Your task to perform on an android device: turn on sleep mode Image 0: 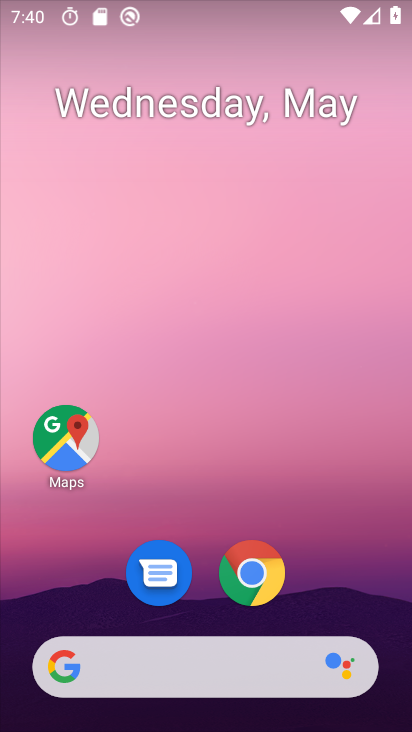
Step 0: drag from (324, 606) to (321, 10)
Your task to perform on an android device: turn on sleep mode Image 1: 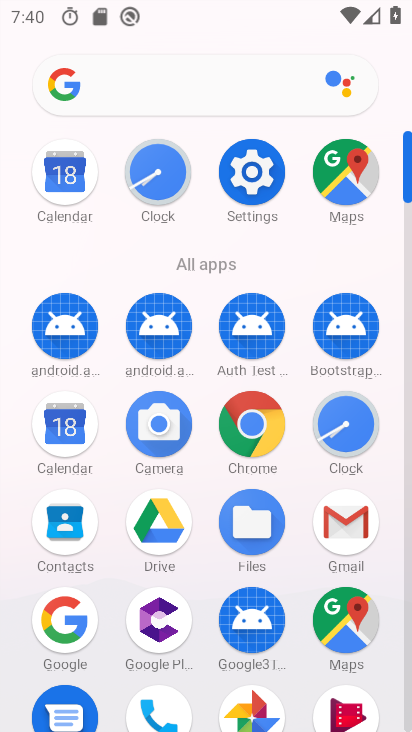
Step 1: click (239, 149)
Your task to perform on an android device: turn on sleep mode Image 2: 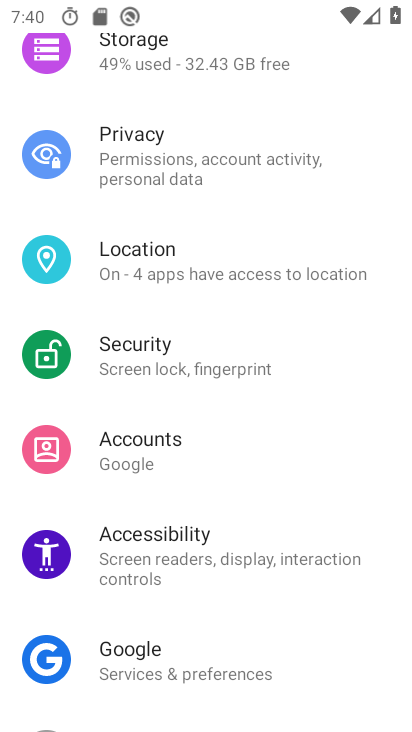
Step 2: drag from (327, 477) to (360, 176)
Your task to perform on an android device: turn on sleep mode Image 3: 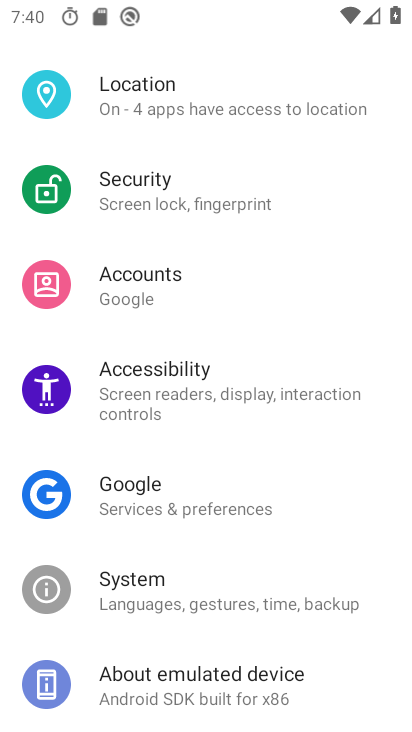
Step 3: drag from (364, 183) to (366, 351)
Your task to perform on an android device: turn on sleep mode Image 4: 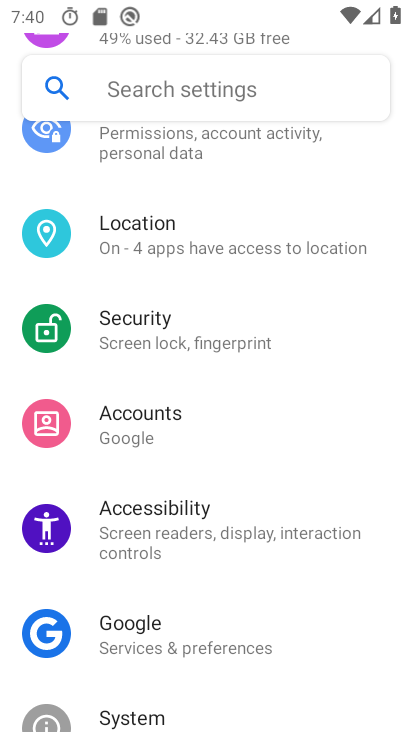
Step 4: drag from (362, 292) to (361, 420)
Your task to perform on an android device: turn on sleep mode Image 5: 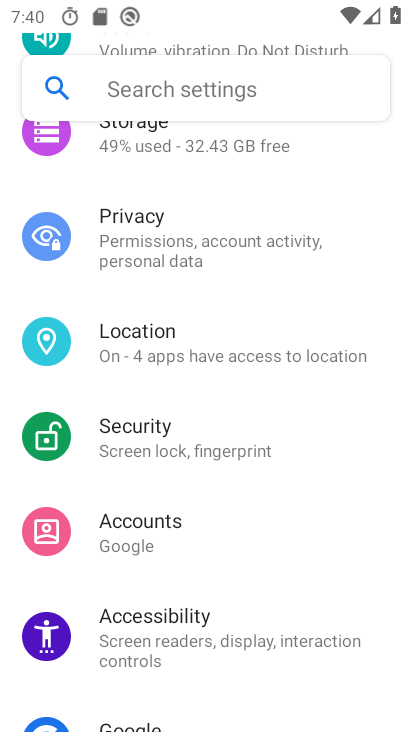
Step 5: drag from (336, 317) to (376, 434)
Your task to perform on an android device: turn on sleep mode Image 6: 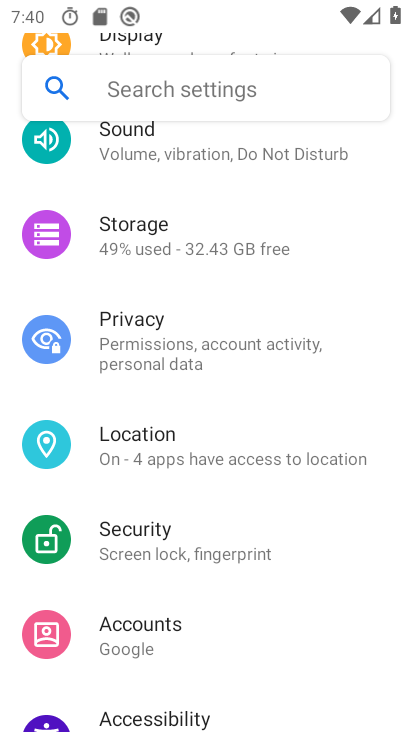
Step 6: drag from (335, 253) to (335, 491)
Your task to perform on an android device: turn on sleep mode Image 7: 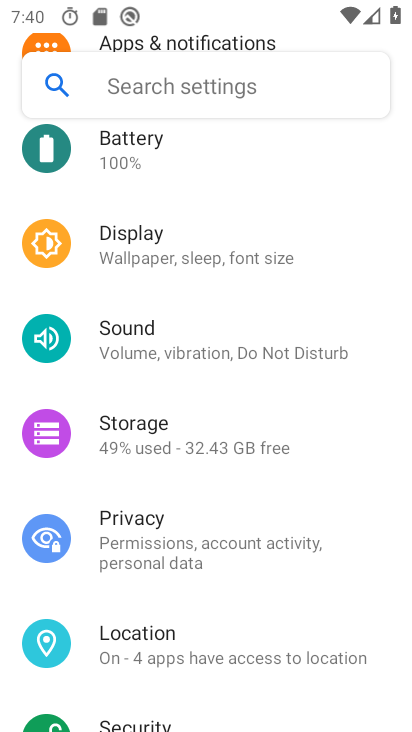
Step 7: drag from (275, 314) to (320, 471)
Your task to perform on an android device: turn on sleep mode Image 8: 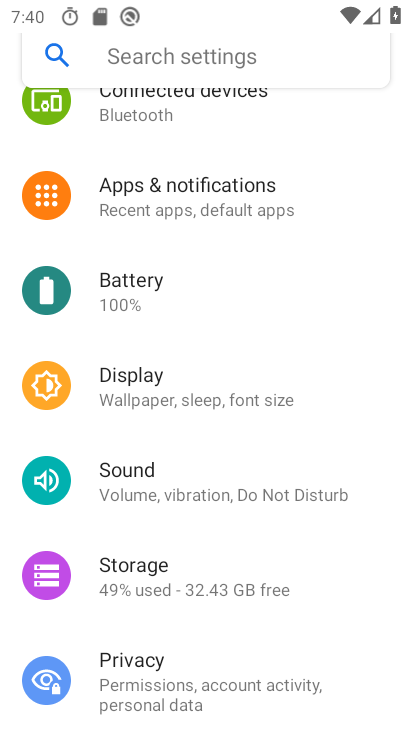
Step 8: drag from (286, 314) to (355, 661)
Your task to perform on an android device: turn on sleep mode Image 9: 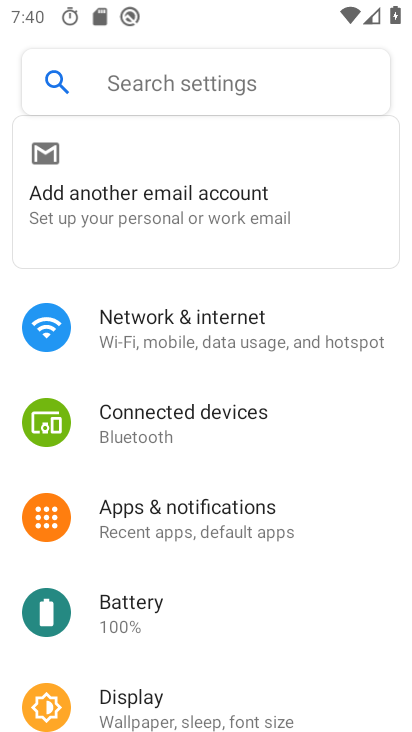
Step 9: click (313, 689)
Your task to perform on an android device: turn on sleep mode Image 10: 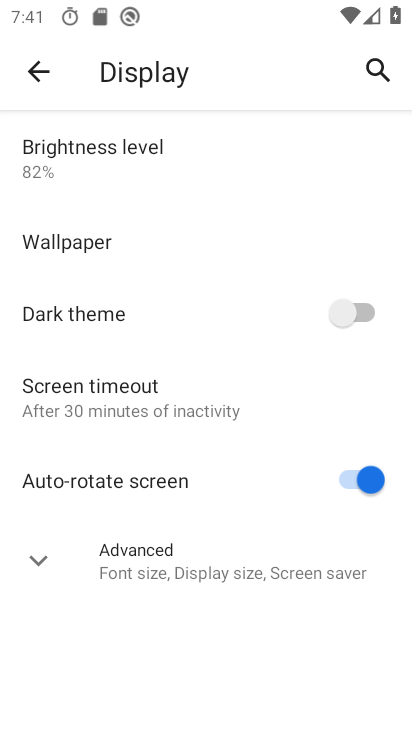
Step 10: click (280, 572)
Your task to perform on an android device: turn on sleep mode Image 11: 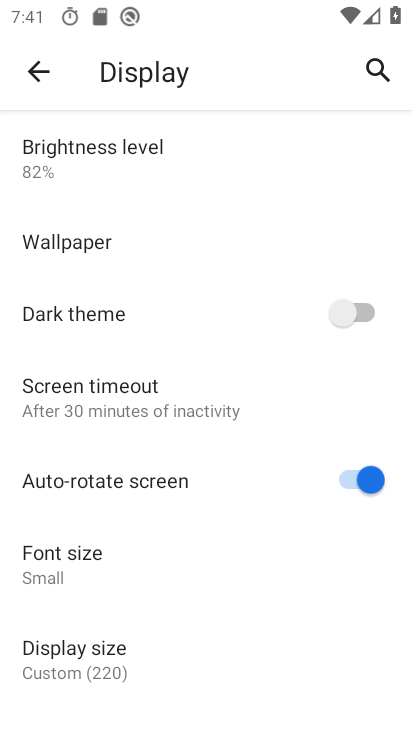
Step 11: task complete